Your task to perform on an android device: toggle data saver in the chrome app Image 0: 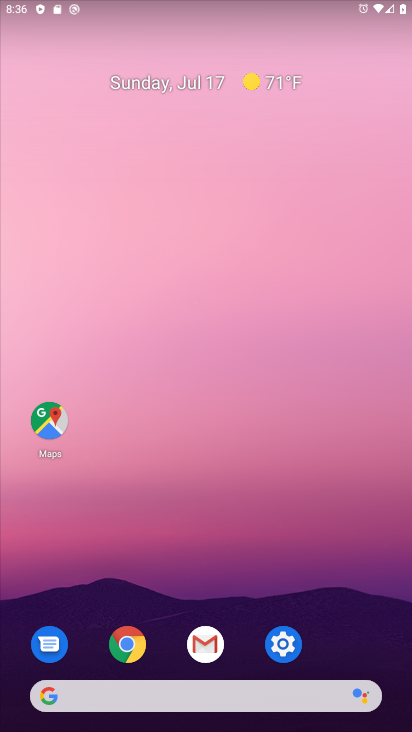
Step 0: drag from (230, 494) to (244, 127)
Your task to perform on an android device: toggle data saver in the chrome app Image 1: 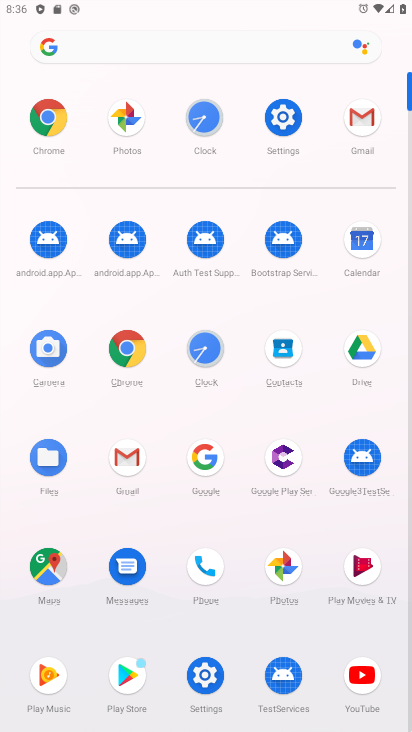
Step 1: click (62, 113)
Your task to perform on an android device: toggle data saver in the chrome app Image 2: 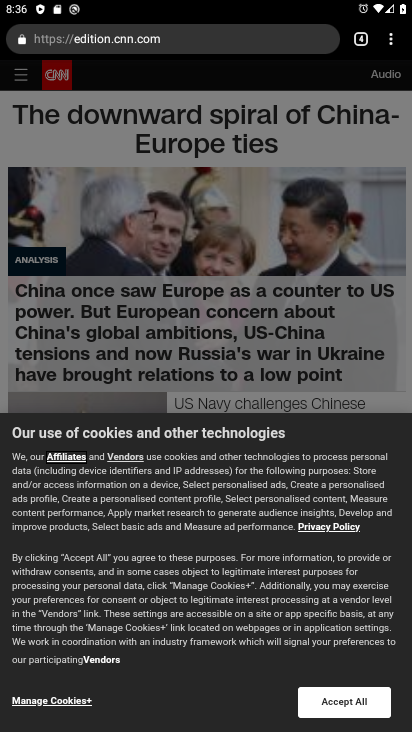
Step 2: click (393, 49)
Your task to perform on an android device: toggle data saver in the chrome app Image 3: 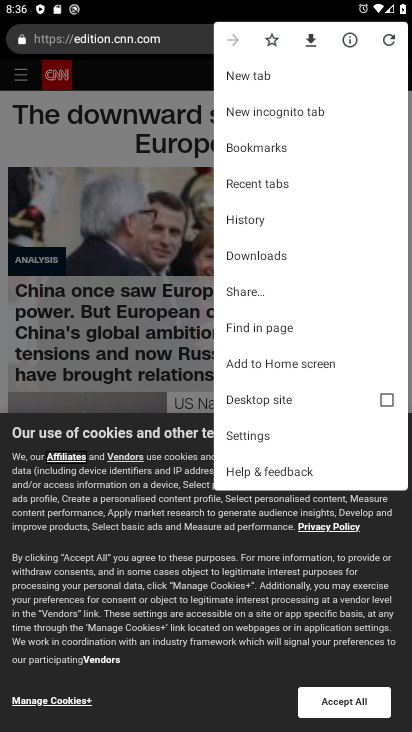
Step 3: click (249, 436)
Your task to perform on an android device: toggle data saver in the chrome app Image 4: 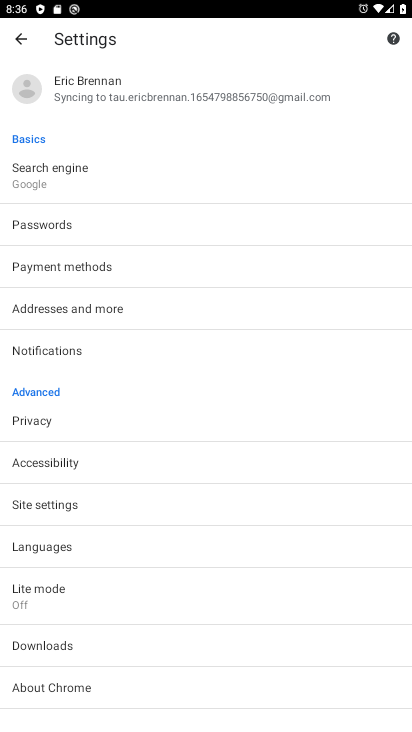
Step 4: click (45, 588)
Your task to perform on an android device: toggle data saver in the chrome app Image 5: 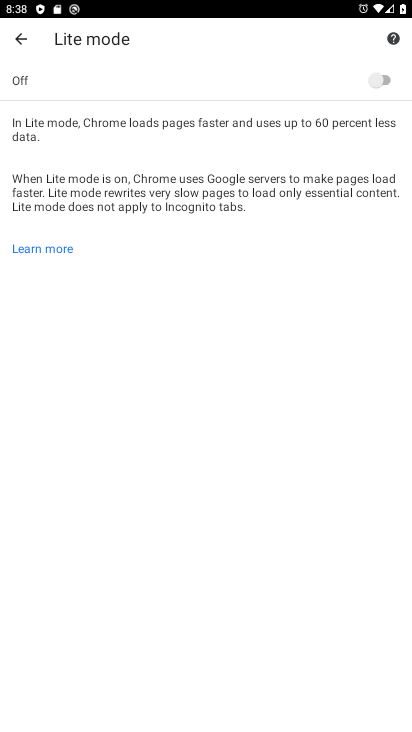
Step 5: task complete